Your task to perform on an android device: set an alarm Image 0: 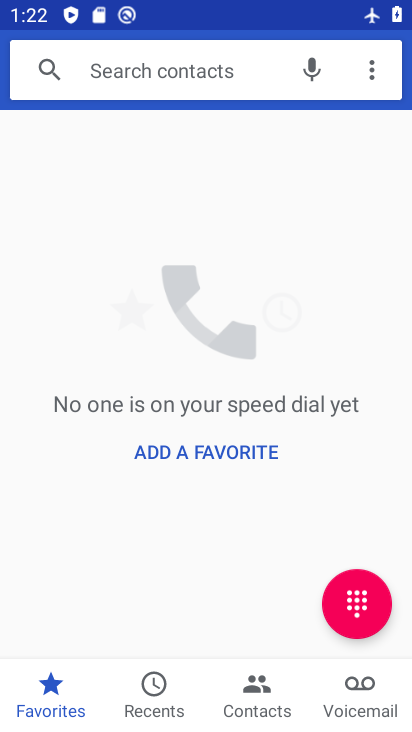
Step 0: press home button
Your task to perform on an android device: set an alarm Image 1: 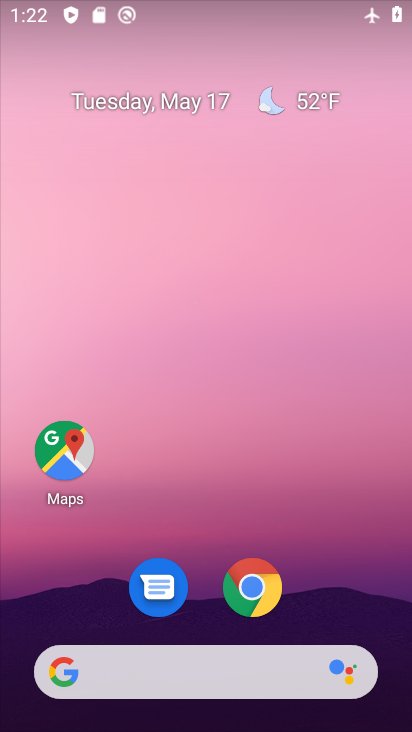
Step 1: drag from (354, 597) to (331, 132)
Your task to perform on an android device: set an alarm Image 2: 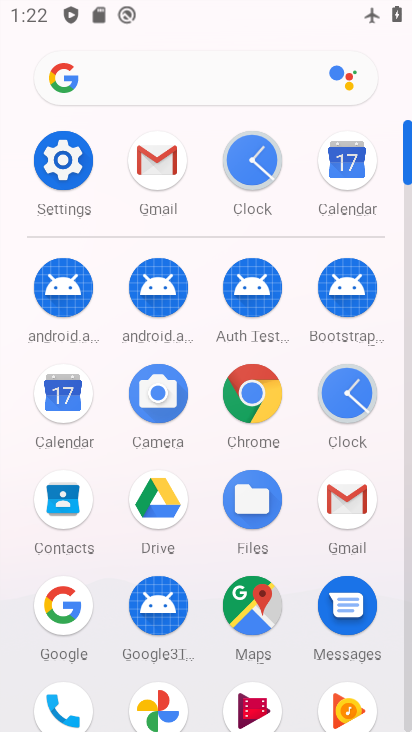
Step 2: click (345, 410)
Your task to perform on an android device: set an alarm Image 3: 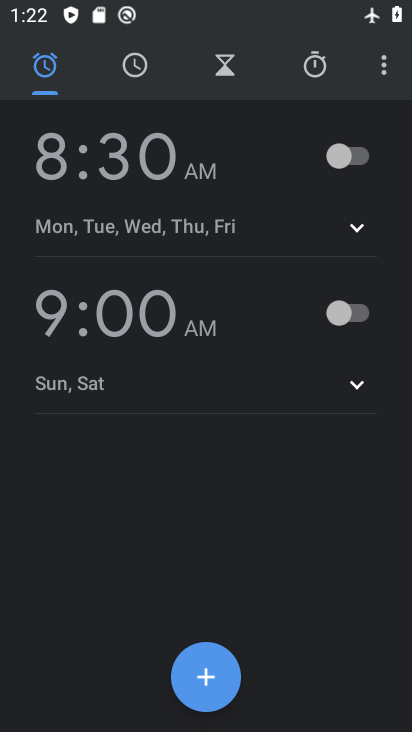
Step 3: click (356, 137)
Your task to perform on an android device: set an alarm Image 4: 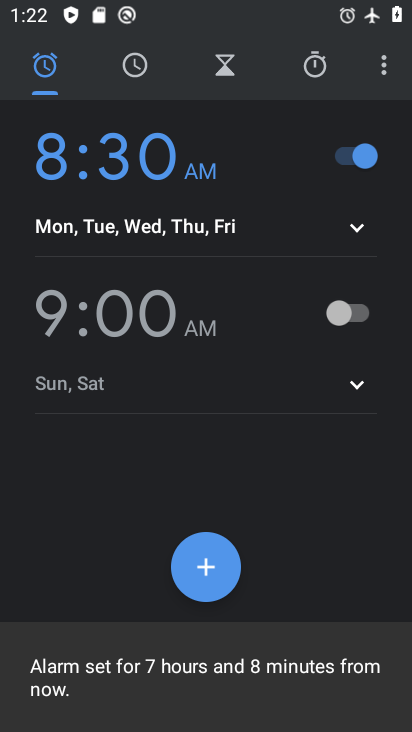
Step 4: task complete